Your task to perform on an android device: Show me recent news Image 0: 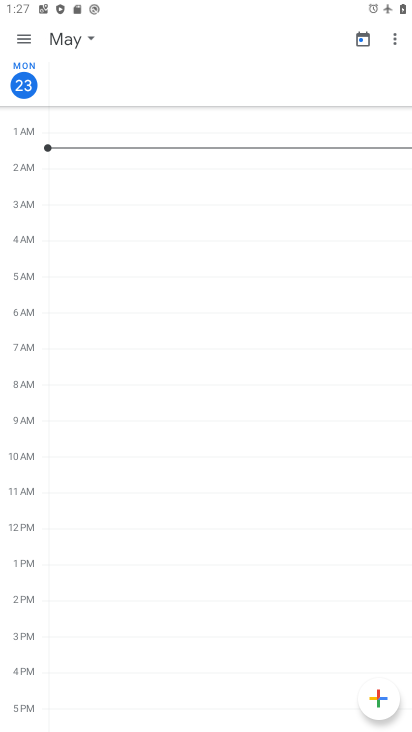
Step 0: press home button
Your task to perform on an android device: Show me recent news Image 1: 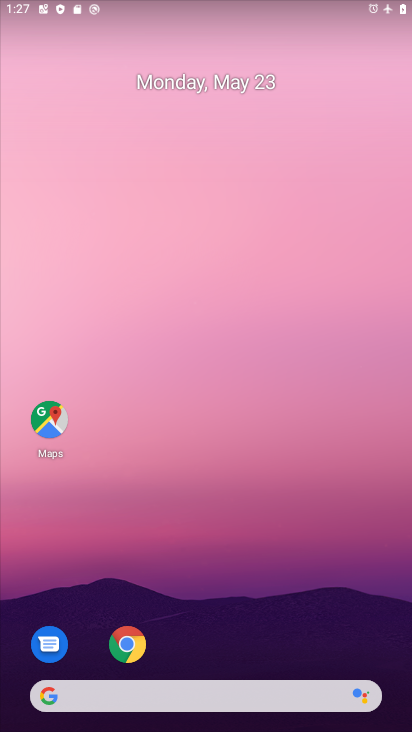
Step 1: drag from (310, 625) to (243, 60)
Your task to perform on an android device: Show me recent news Image 2: 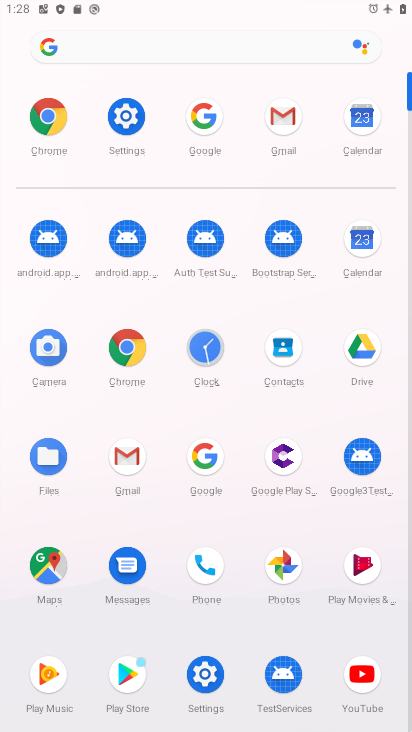
Step 2: click (201, 476)
Your task to perform on an android device: Show me recent news Image 3: 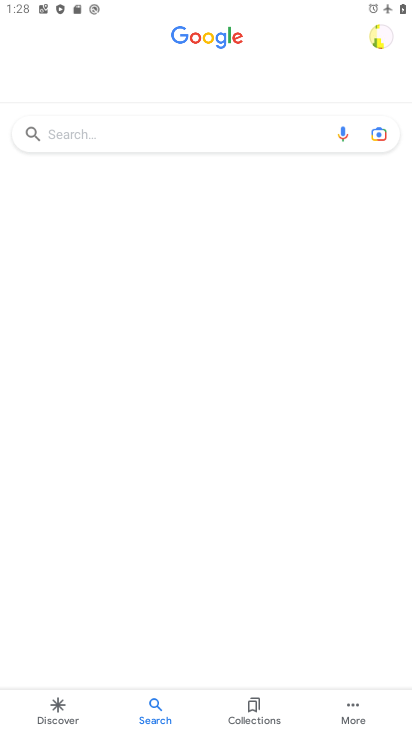
Step 3: press home button
Your task to perform on an android device: Show me recent news Image 4: 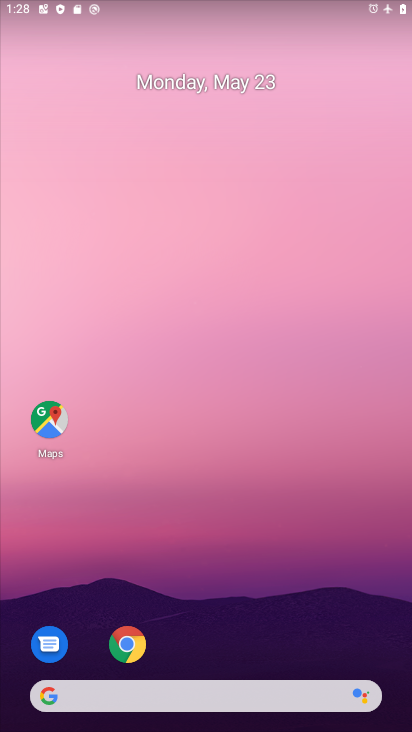
Step 4: drag from (324, 622) to (238, 124)
Your task to perform on an android device: Show me recent news Image 5: 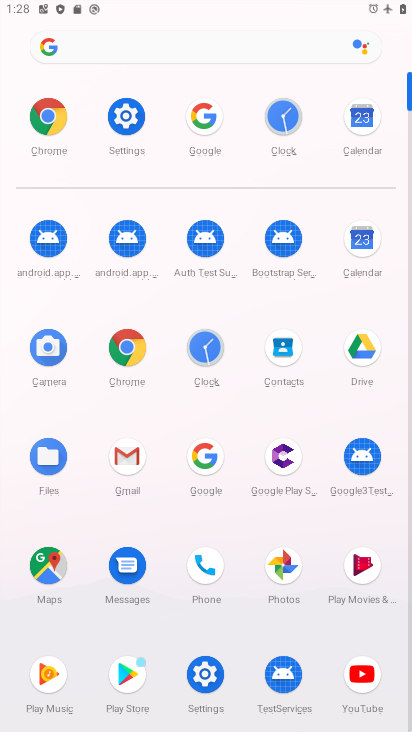
Step 5: click (293, 563)
Your task to perform on an android device: Show me recent news Image 6: 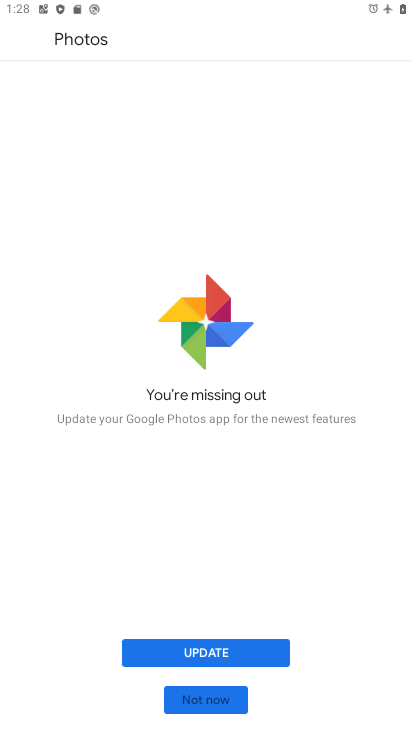
Step 6: click (219, 653)
Your task to perform on an android device: Show me recent news Image 7: 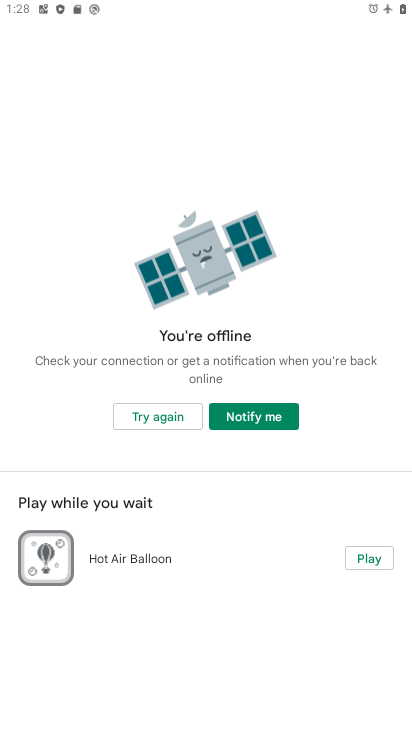
Step 7: task complete